Your task to perform on an android device: Open my contact list Image 0: 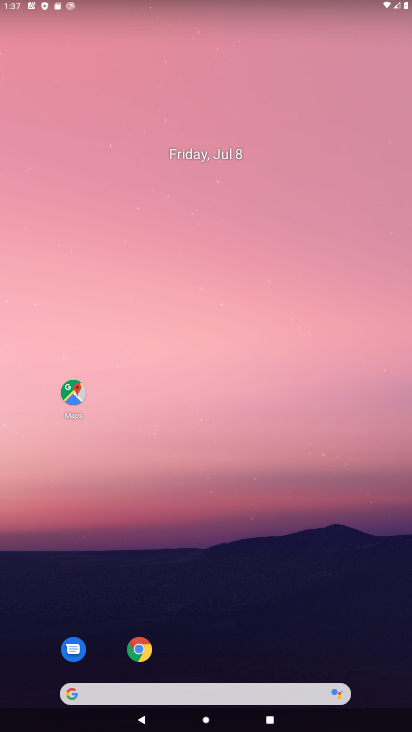
Step 0: drag from (40, 664) to (267, 15)
Your task to perform on an android device: Open my contact list Image 1: 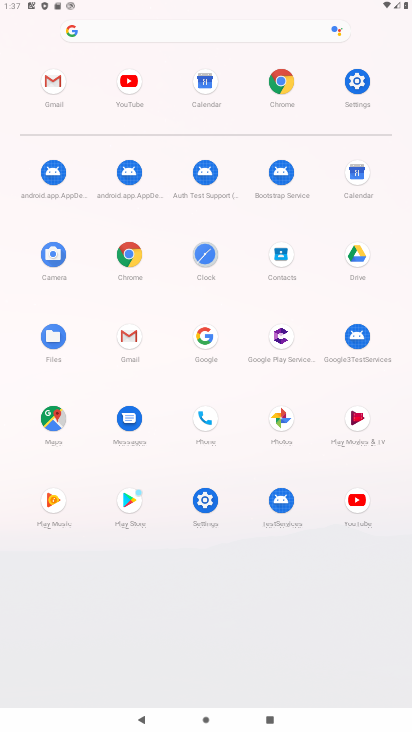
Step 1: click (204, 416)
Your task to perform on an android device: Open my contact list Image 2: 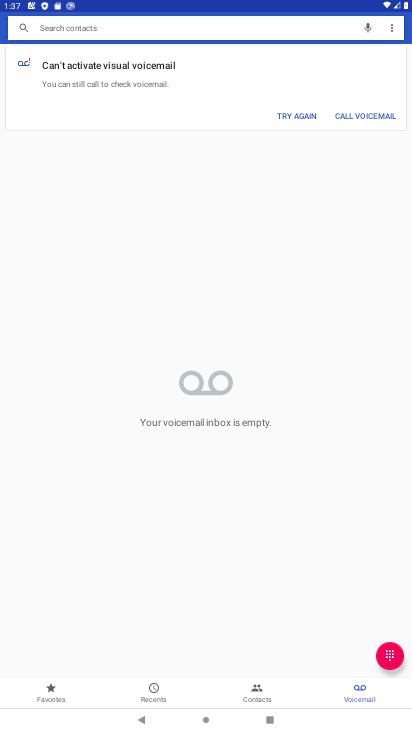
Step 2: click (245, 681)
Your task to perform on an android device: Open my contact list Image 3: 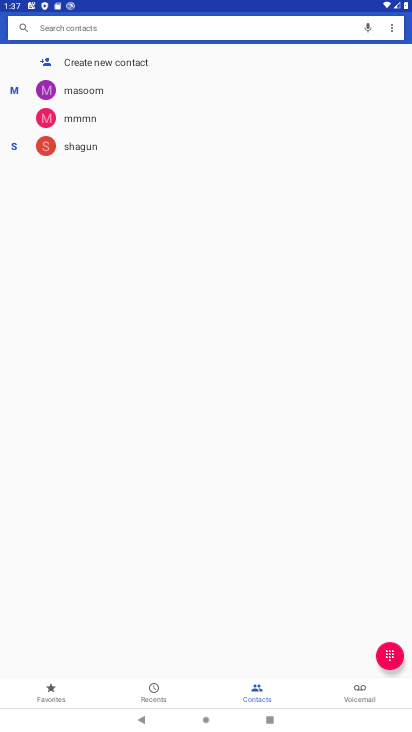
Step 3: task complete